Your task to perform on an android device: toggle javascript in the chrome app Image 0: 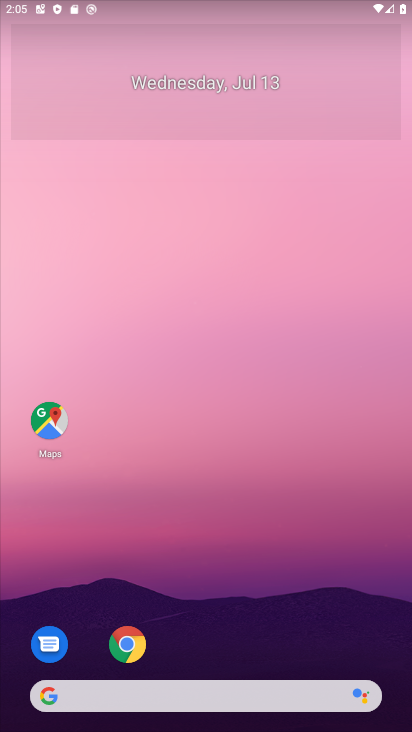
Step 0: drag from (254, 637) to (251, 140)
Your task to perform on an android device: toggle javascript in the chrome app Image 1: 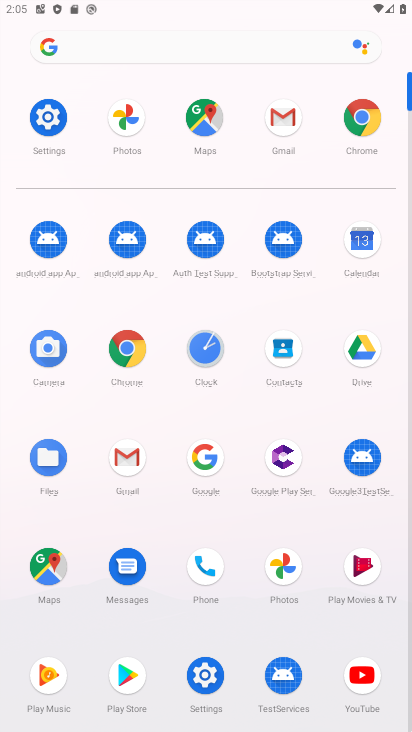
Step 1: click (364, 117)
Your task to perform on an android device: toggle javascript in the chrome app Image 2: 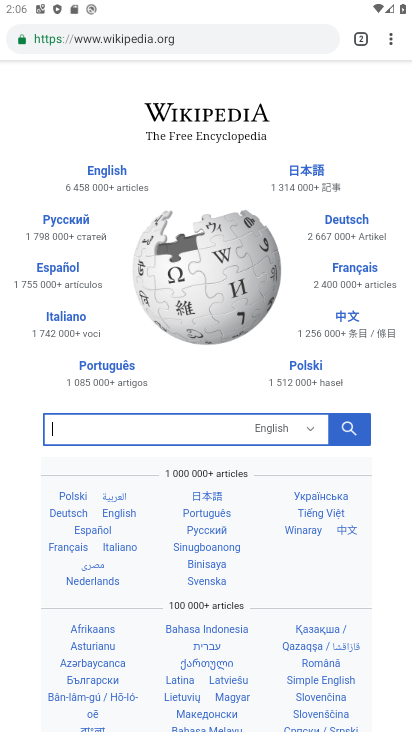
Step 2: drag from (393, 41) to (262, 475)
Your task to perform on an android device: toggle javascript in the chrome app Image 3: 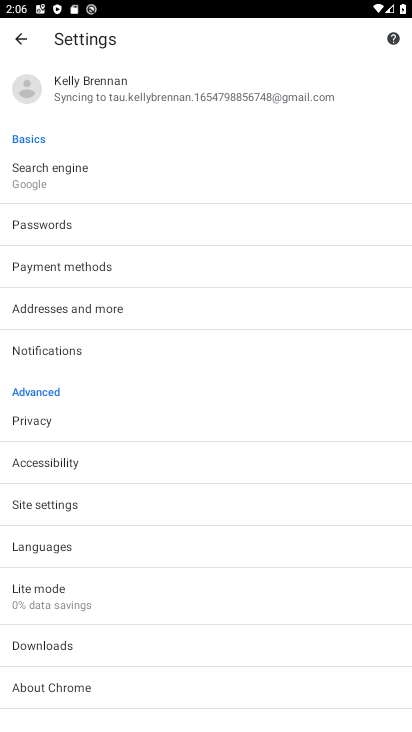
Step 3: click (65, 512)
Your task to perform on an android device: toggle javascript in the chrome app Image 4: 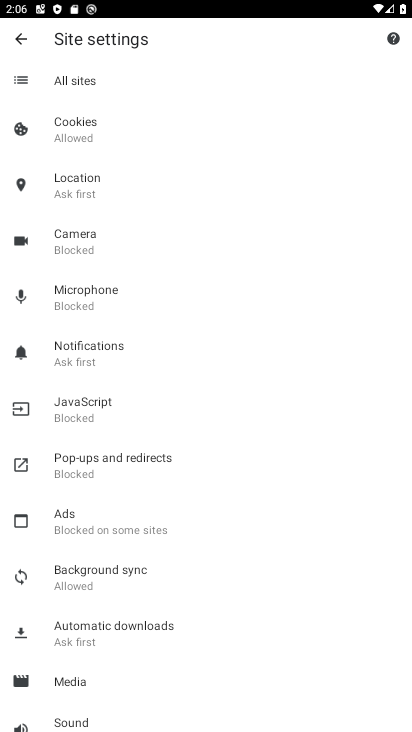
Step 4: click (102, 393)
Your task to perform on an android device: toggle javascript in the chrome app Image 5: 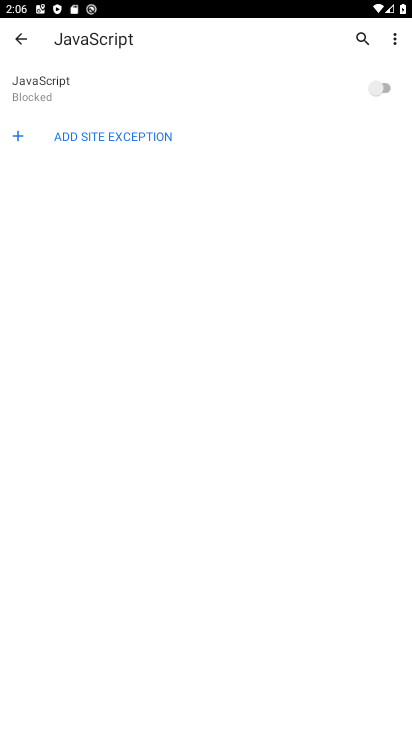
Step 5: click (397, 93)
Your task to perform on an android device: toggle javascript in the chrome app Image 6: 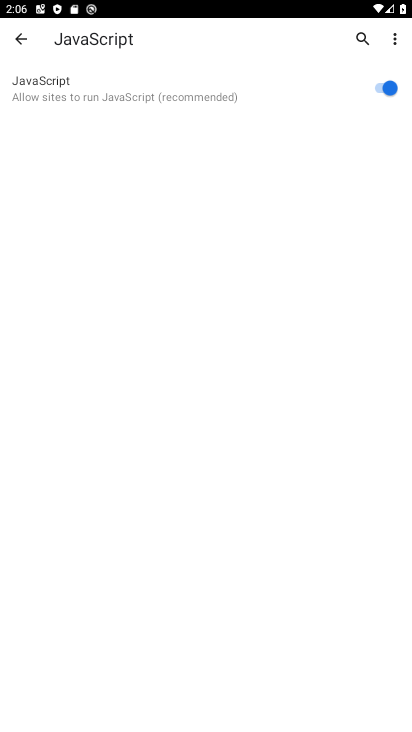
Step 6: task complete